Your task to perform on an android device: Search for seafood restaurants on Google Maps Image 0: 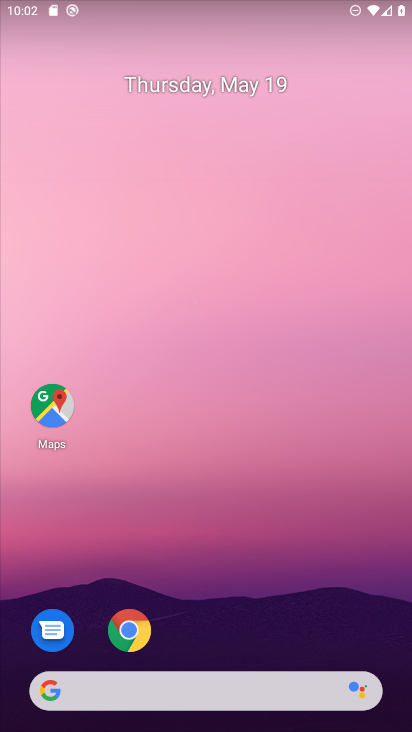
Step 0: drag from (289, 595) to (287, 172)
Your task to perform on an android device: Search for seafood restaurants on Google Maps Image 1: 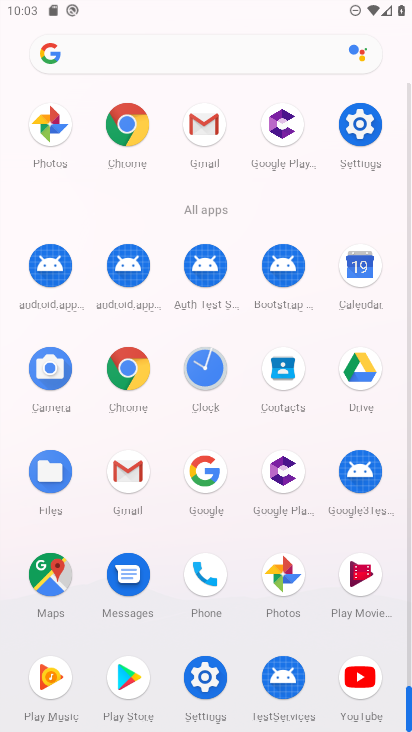
Step 1: click (54, 584)
Your task to perform on an android device: Search for seafood restaurants on Google Maps Image 2: 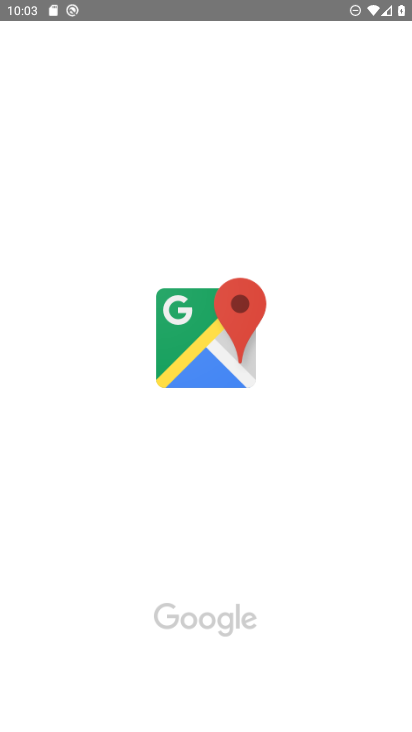
Step 2: task complete